Your task to perform on an android device: toggle notifications settings in the gmail app Image 0: 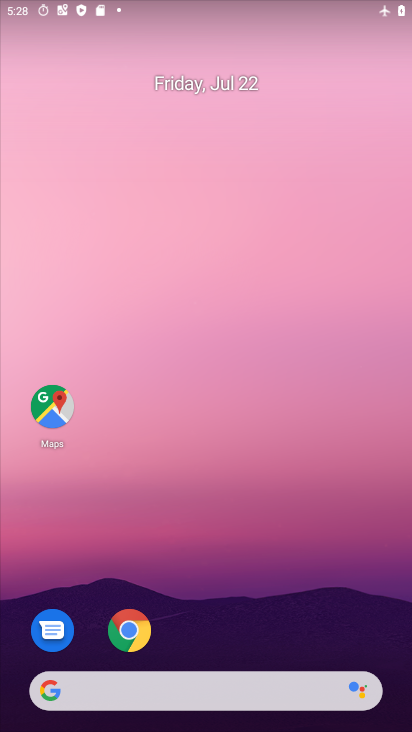
Step 0: drag from (169, 689) to (122, 85)
Your task to perform on an android device: toggle notifications settings in the gmail app Image 1: 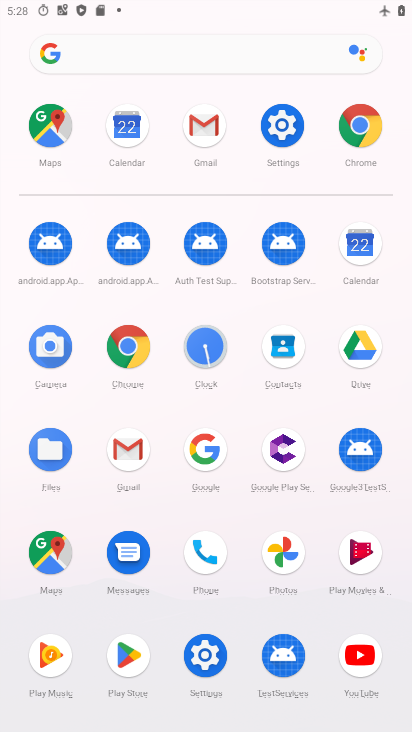
Step 1: click (130, 448)
Your task to perform on an android device: toggle notifications settings in the gmail app Image 2: 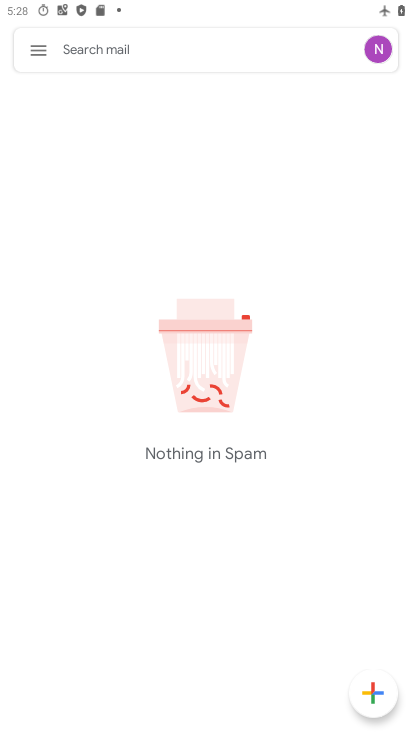
Step 2: click (26, 39)
Your task to perform on an android device: toggle notifications settings in the gmail app Image 3: 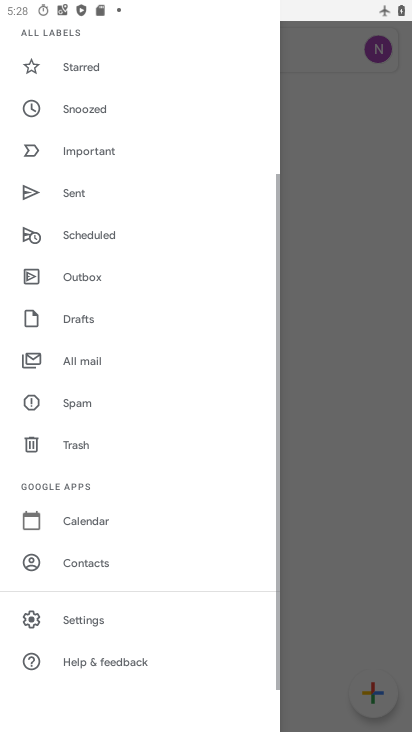
Step 3: click (116, 632)
Your task to perform on an android device: toggle notifications settings in the gmail app Image 4: 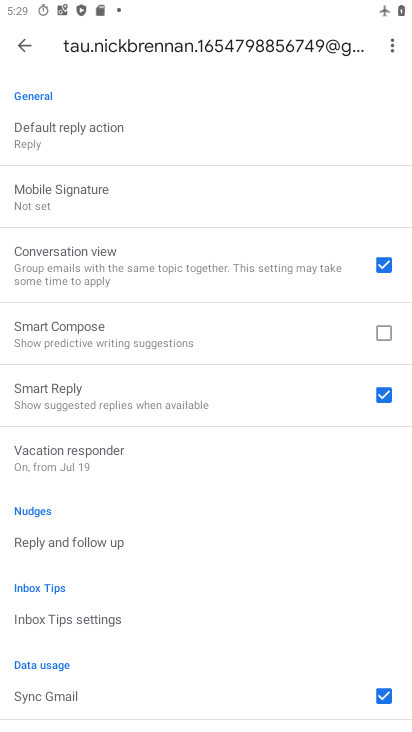
Step 4: drag from (114, 296) to (55, 643)
Your task to perform on an android device: toggle notifications settings in the gmail app Image 5: 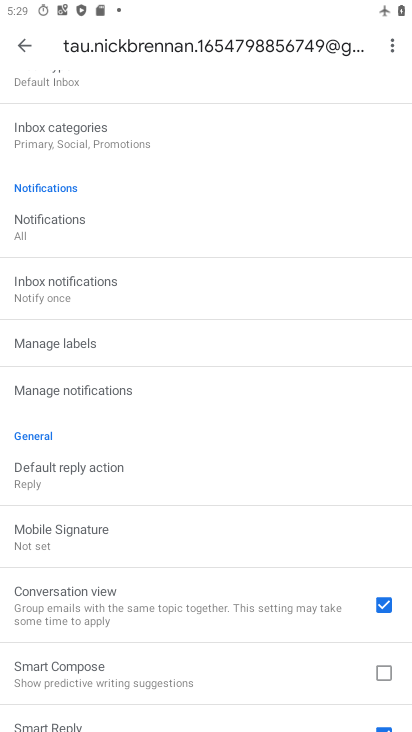
Step 5: click (100, 395)
Your task to perform on an android device: toggle notifications settings in the gmail app Image 6: 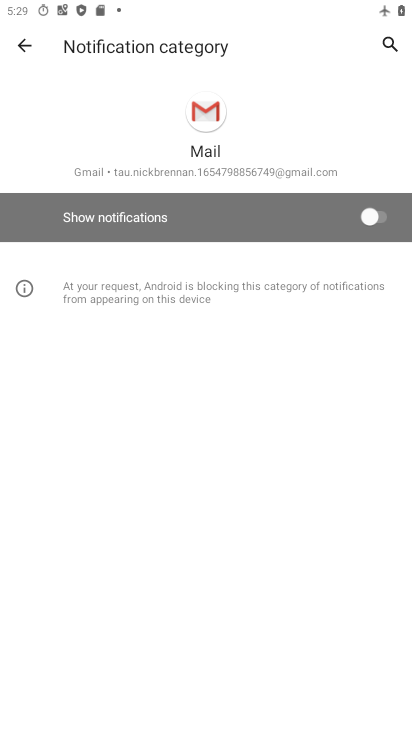
Step 6: click (380, 225)
Your task to perform on an android device: toggle notifications settings in the gmail app Image 7: 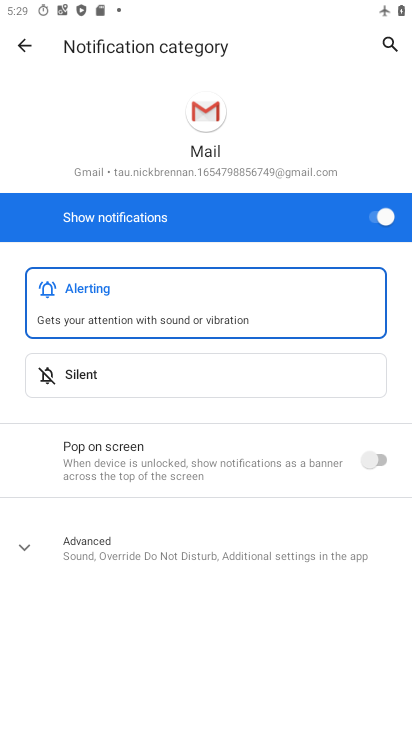
Step 7: task complete